Your task to perform on an android device: clear history in the chrome app Image 0: 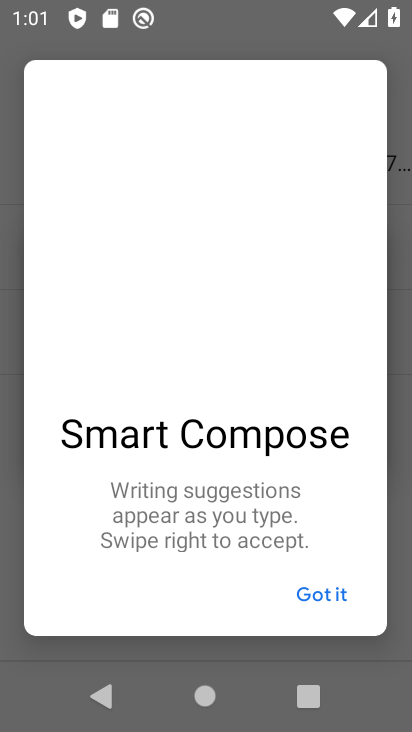
Step 0: press back button
Your task to perform on an android device: clear history in the chrome app Image 1: 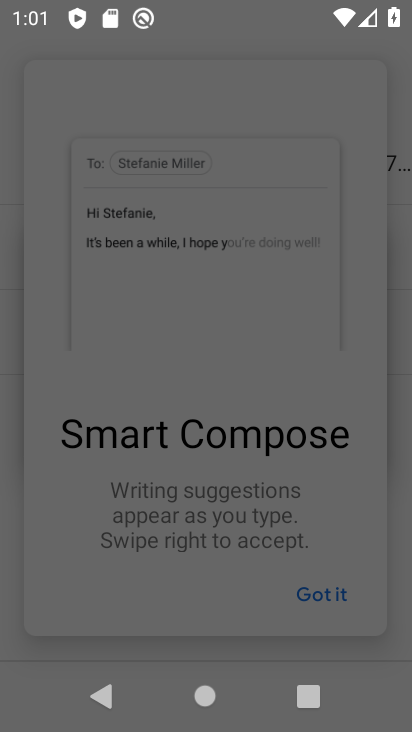
Step 1: press home button
Your task to perform on an android device: clear history in the chrome app Image 2: 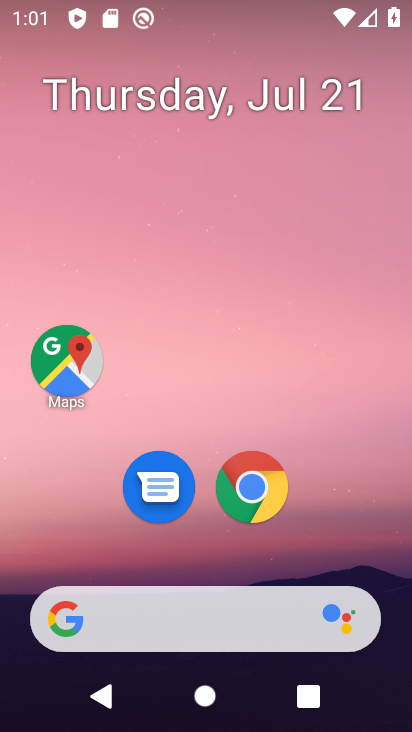
Step 2: click (240, 507)
Your task to perform on an android device: clear history in the chrome app Image 3: 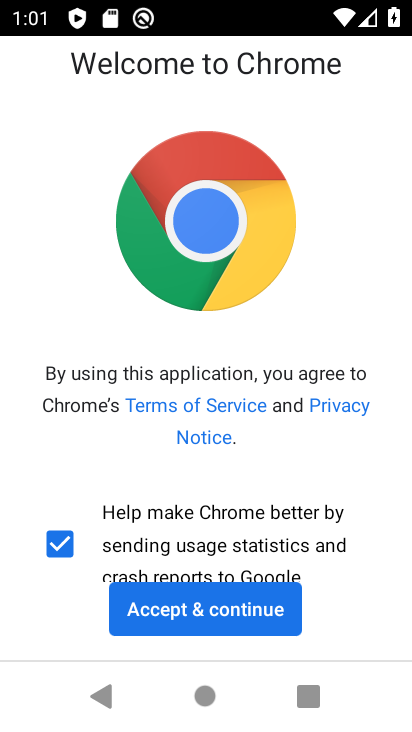
Step 3: click (175, 586)
Your task to perform on an android device: clear history in the chrome app Image 4: 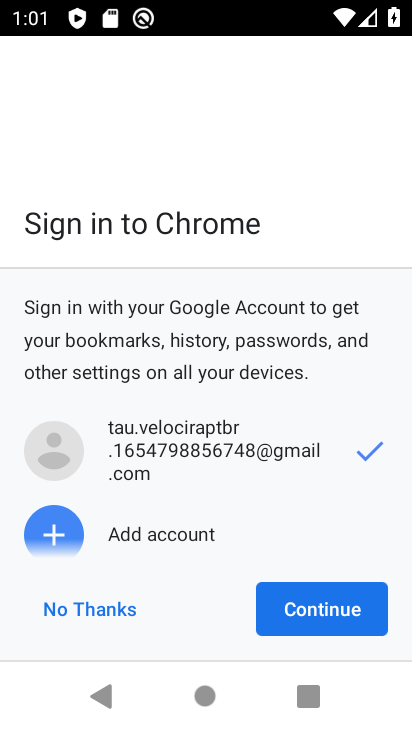
Step 4: click (317, 610)
Your task to perform on an android device: clear history in the chrome app Image 5: 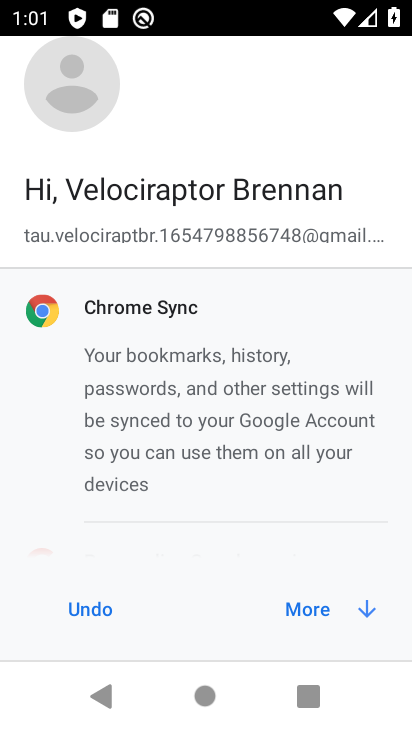
Step 5: click (317, 610)
Your task to perform on an android device: clear history in the chrome app Image 6: 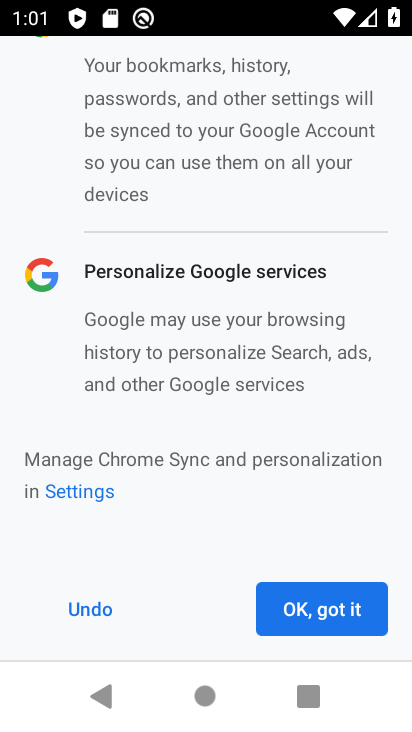
Step 6: click (317, 610)
Your task to perform on an android device: clear history in the chrome app Image 7: 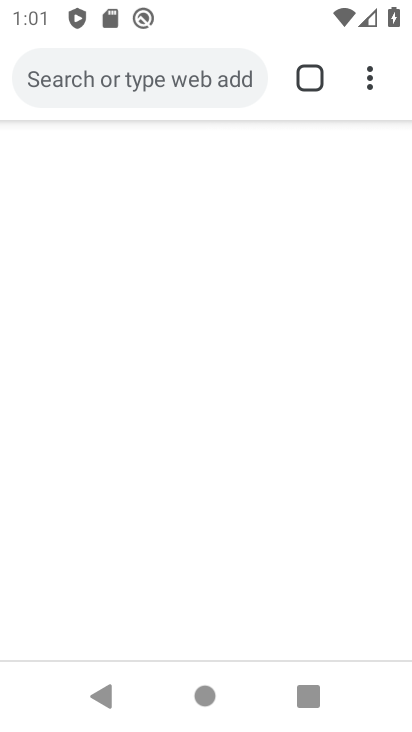
Step 7: drag from (368, 80) to (89, 449)
Your task to perform on an android device: clear history in the chrome app Image 8: 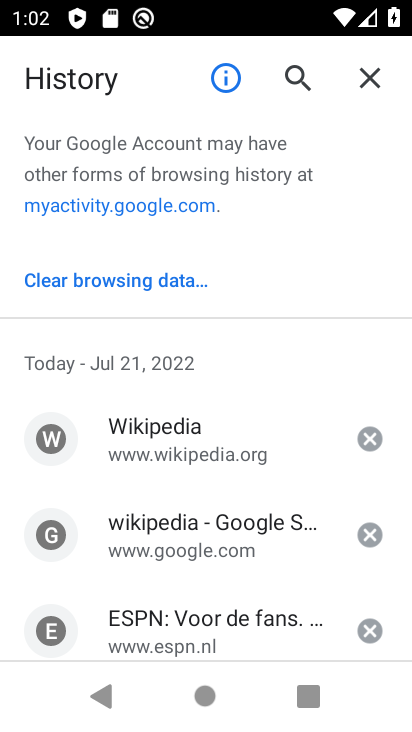
Step 8: click (133, 280)
Your task to perform on an android device: clear history in the chrome app Image 9: 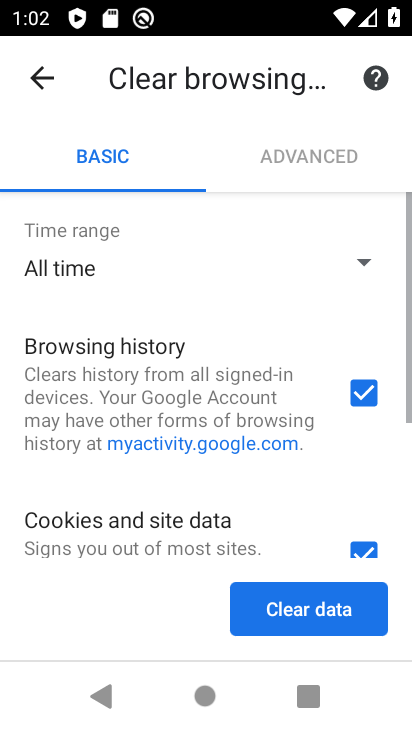
Step 9: drag from (202, 500) to (280, 194)
Your task to perform on an android device: clear history in the chrome app Image 10: 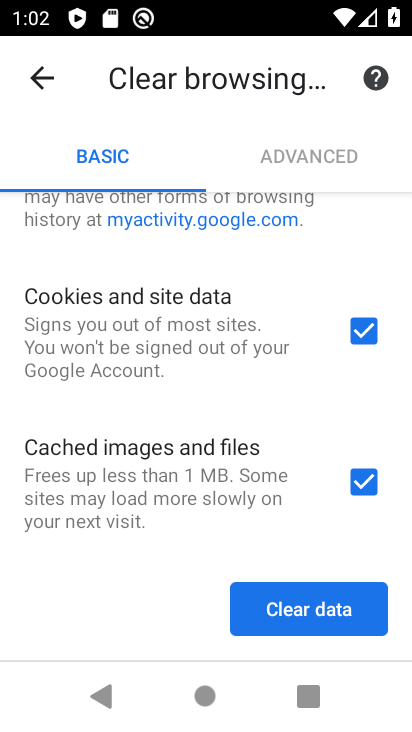
Step 10: click (325, 626)
Your task to perform on an android device: clear history in the chrome app Image 11: 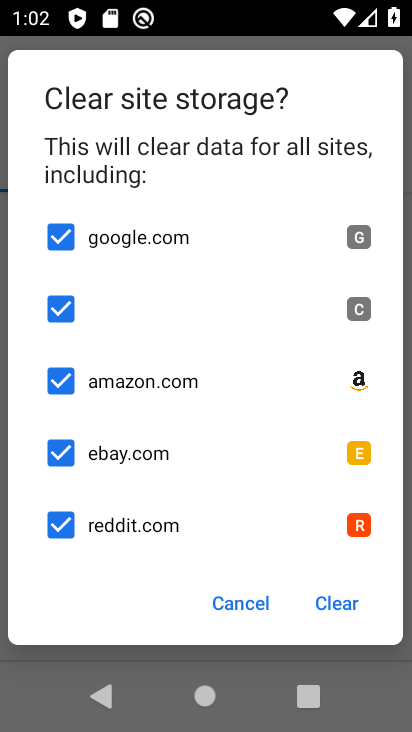
Step 11: click (336, 600)
Your task to perform on an android device: clear history in the chrome app Image 12: 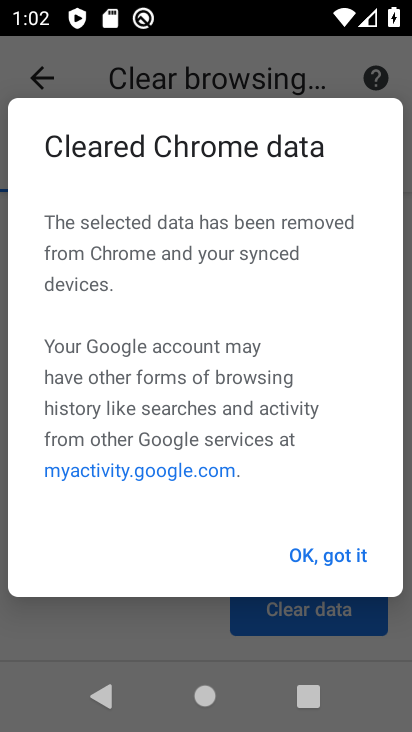
Step 12: click (310, 553)
Your task to perform on an android device: clear history in the chrome app Image 13: 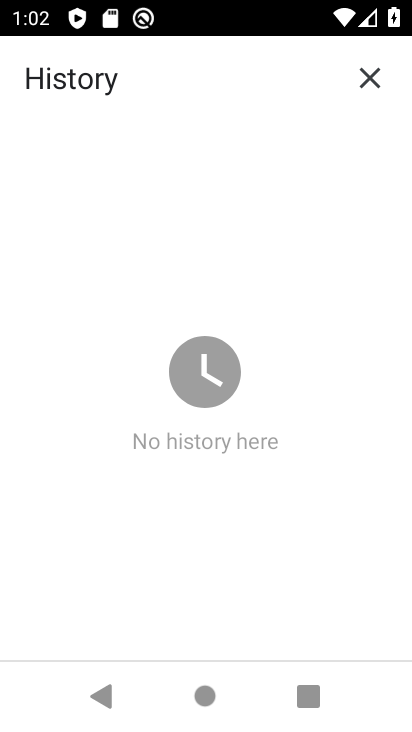
Step 13: task complete